Your task to perform on an android device: Do I have any events tomorrow? Image 0: 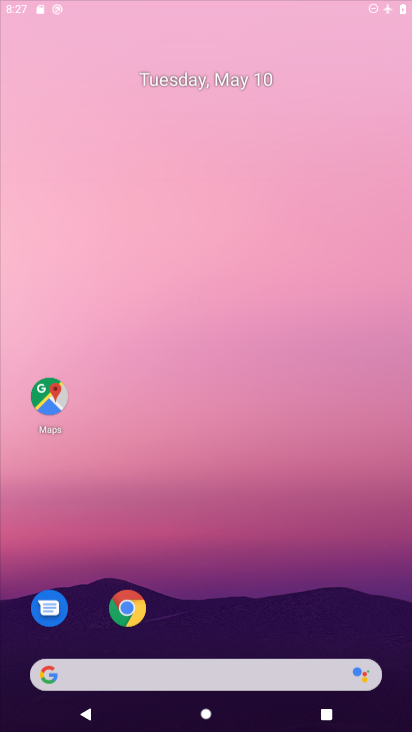
Step 0: drag from (281, 329) to (270, 273)
Your task to perform on an android device: Do I have any events tomorrow? Image 1: 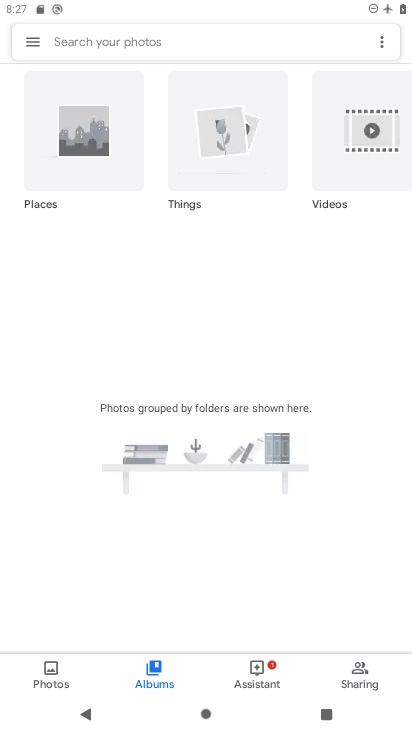
Step 1: press home button
Your task to perform on an android device: Do I have any events tomorrow? Image 2: 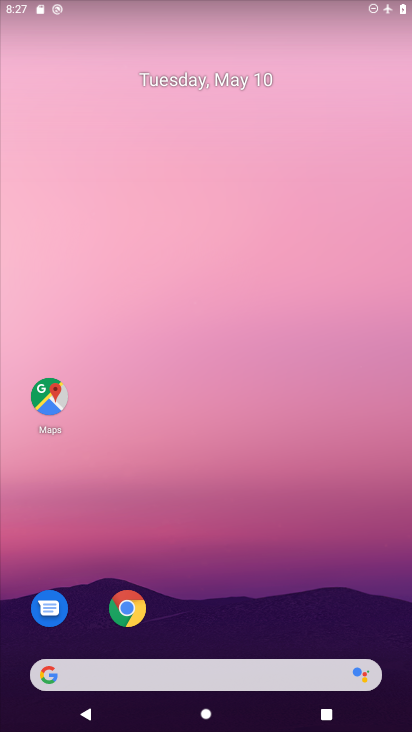
Step 2: drag from (259, 603) to (306, 274)
Your task to perform on an android device: Do I have any events tomorrow? Image 3: 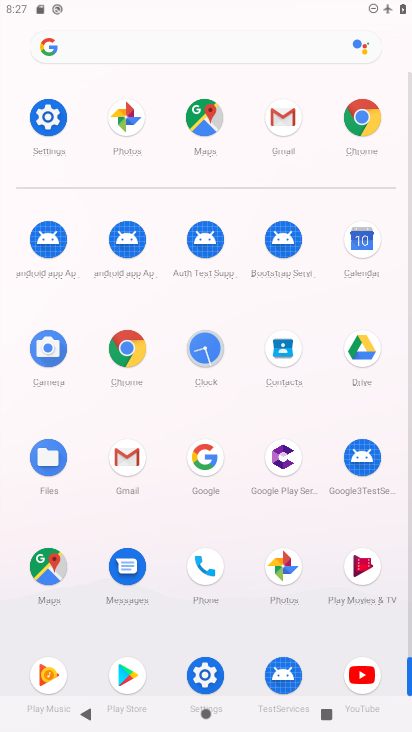
Step 3: click (359, 237)
Your task to perform on an android device: Do I have any events tomorrow? Image 4: 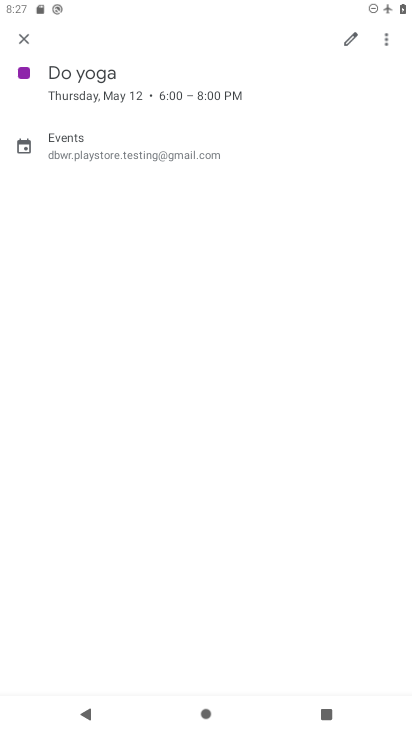
Step 4: click (21, 31)
Your task to perform on an android device: Do I have any events tomorrow? Image 5: 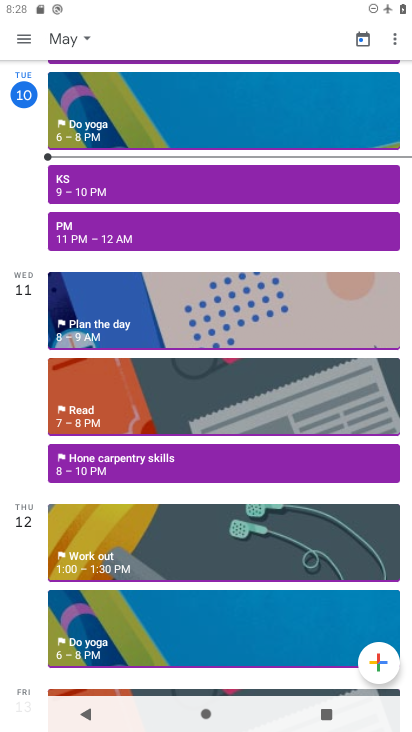
Step 5: task complete